Your task to perform on an android device: What is the news today? Image 0: 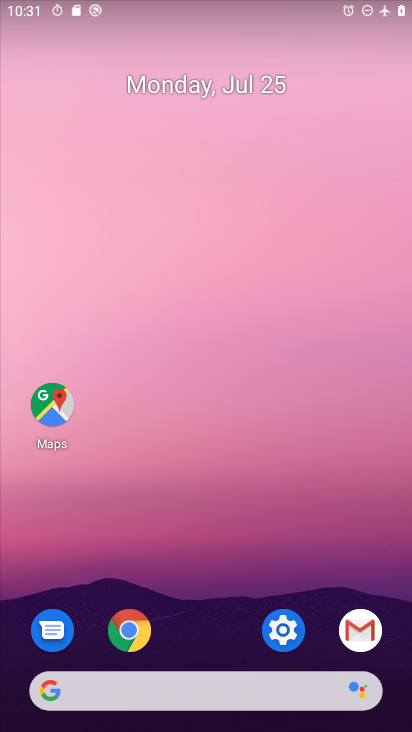
Step 0: click (259, 692)
Your task to perform on an android device: What is the news today? Image 1: 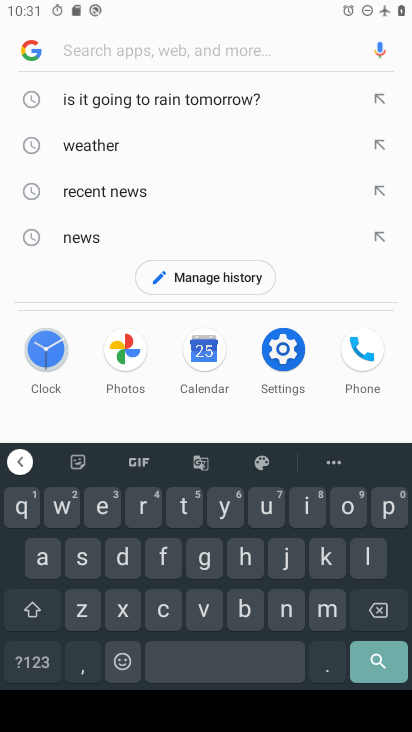
Step 1: click (89, 238)
Your task to perform on an android device: What is the news today? Image 2: 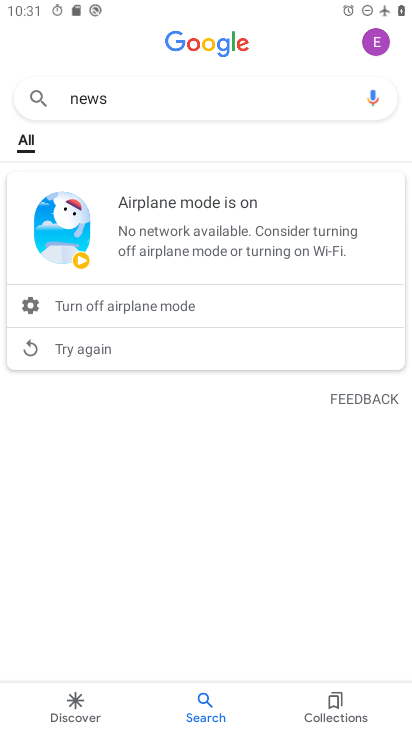
Step 2: press home button
Your task to perform on an android device: What is the news today? Image 3: 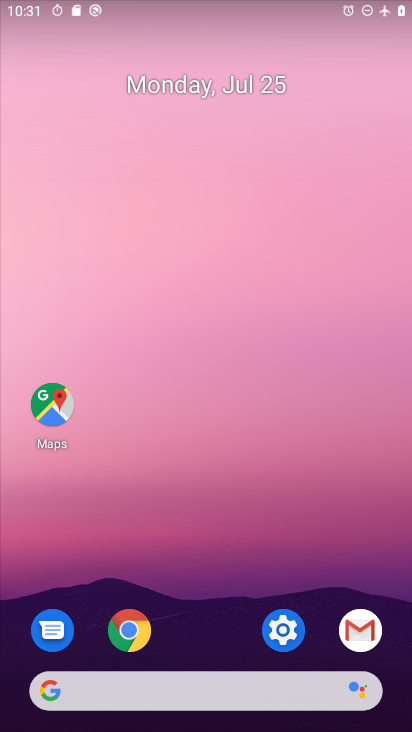
Step 3: click (283, 637)
Your task to perform on an android device: What is the news today? Image 4: 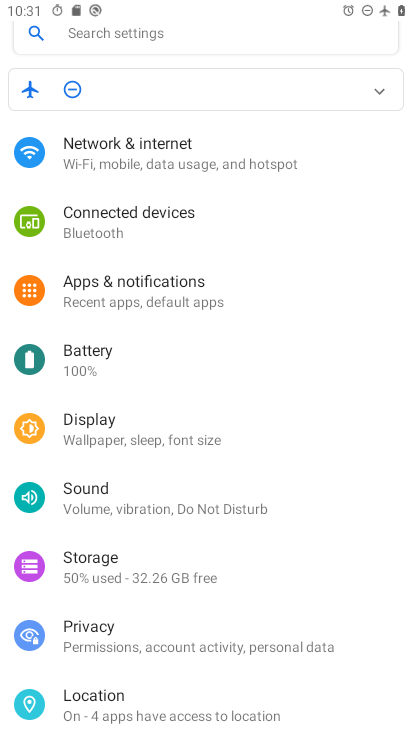
Step 4: click (70, 90)
Your task to perform on an android device: What is the news today? Image 5: 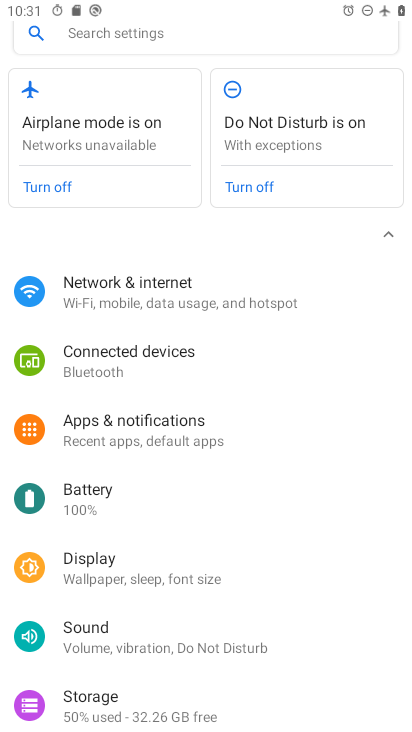
Step 5: click (80, 185)
Your task to perform on an android device: What is the news today? Image 6: 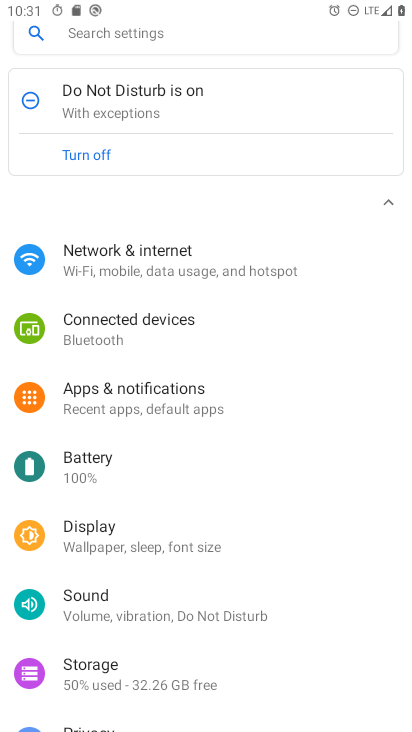
Step 6: press home button
Your task to perform on an android device: What is the news today? Image 7: 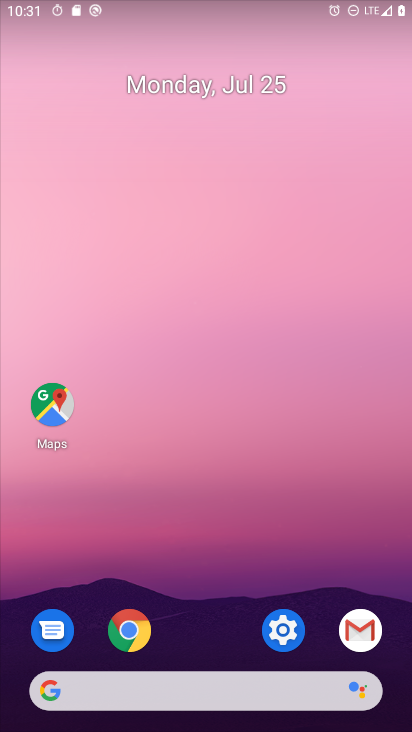
Step 7: click (149, 679)
Your task to perform on an android device: What is the news today? Image 8: 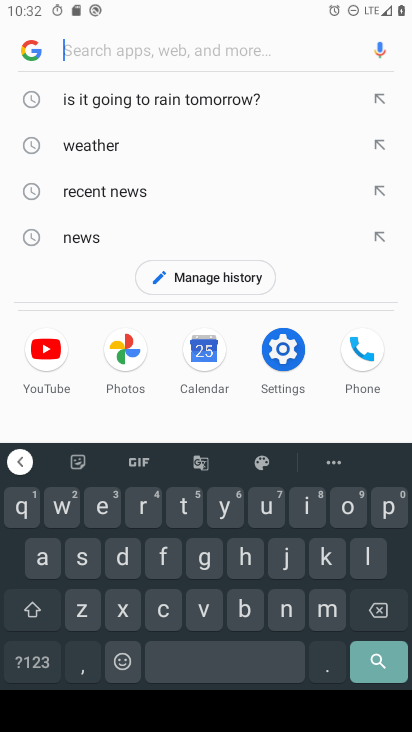
Step 8: click (107, 229)
Your task to perform on an android device: What is the news today? Image 9: 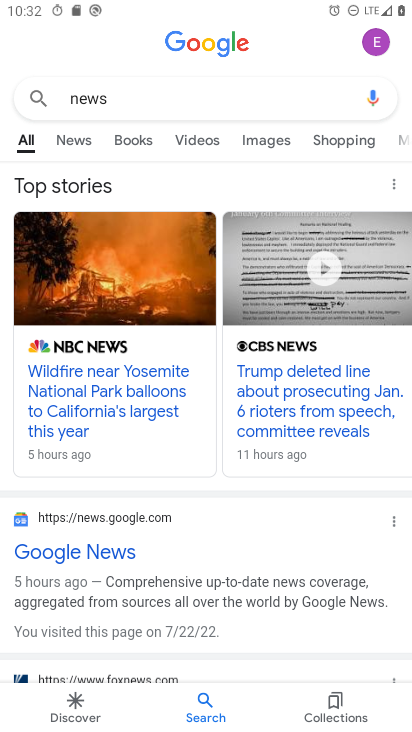
Step 9: task complete